Your task to perform on an android device: Open the map Image 0: 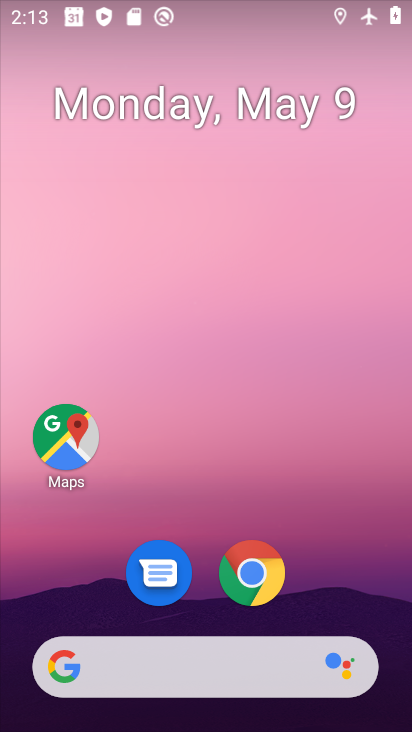
Step 0: drag from (399, 578) to (329, 139)
Your task to perform on an android device: Open the map Image 1: 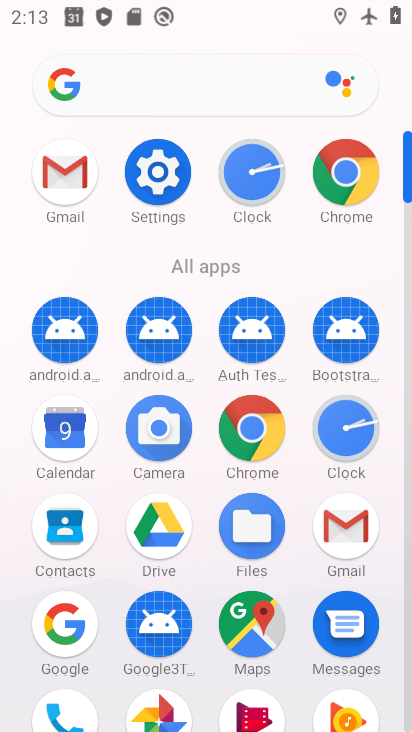
Step 1: click (258, 626)
Your task to perform on an android device: Open the map Image 2: 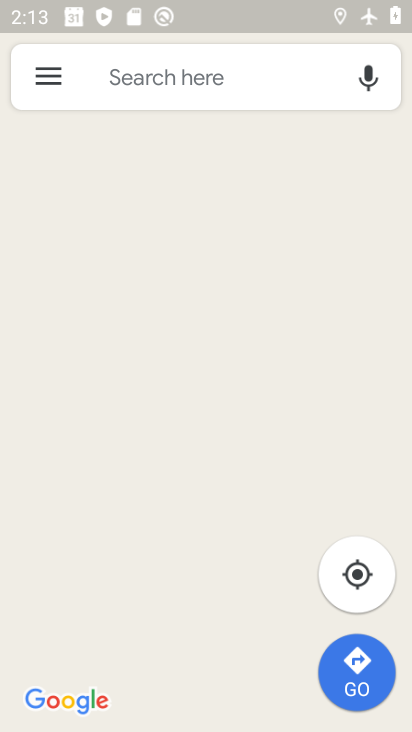
Step 2: task complete